Your task to perform on an android device: stop showing notifications on the lock screen Image 0: 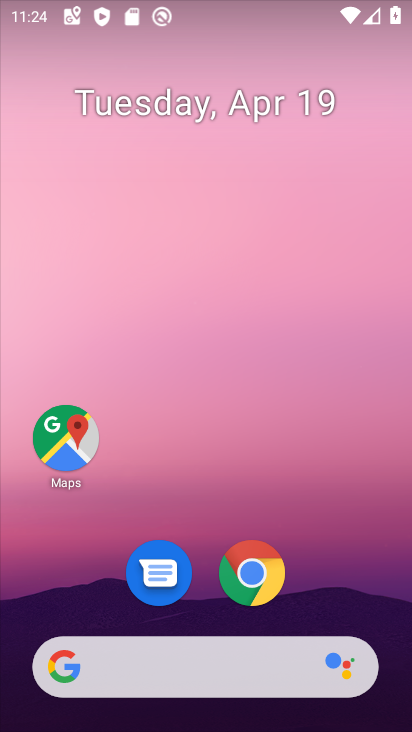
Step 0: drag from (328, 581) to (341, 93)
Your task to perform on an android device: stop showing notifications on the lock screen Image 1: 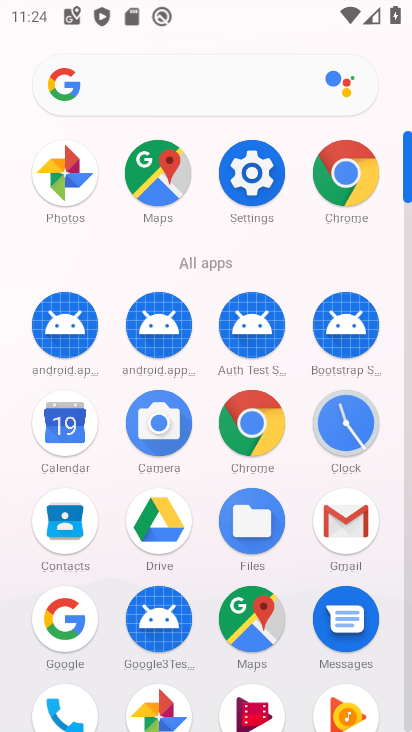
Step 1: click (260, 176)
Your task to perform on an android device: stop showing notifications on the lock screen Image 2: 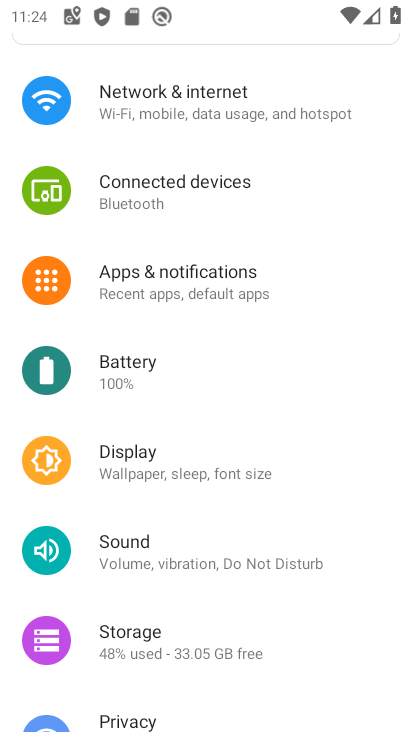
Step 2: click (216, 276)
Your task to perform on an android device: stop showing notifications on the lock screen Image 3: 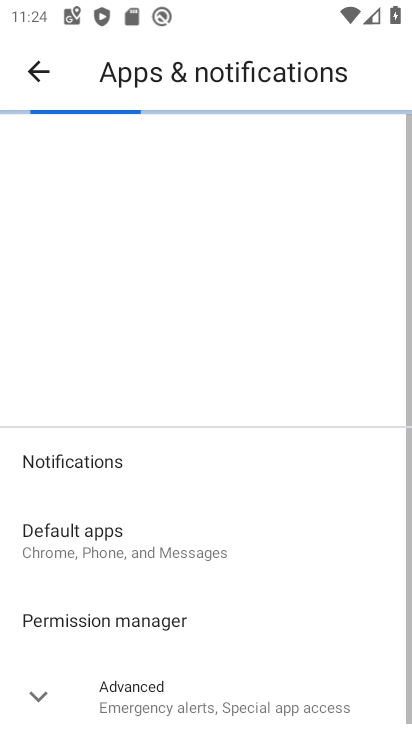
Step 3: click (216, 277)
Your task to perform on an android device: stop showing notifications on the lock screen Image 4: 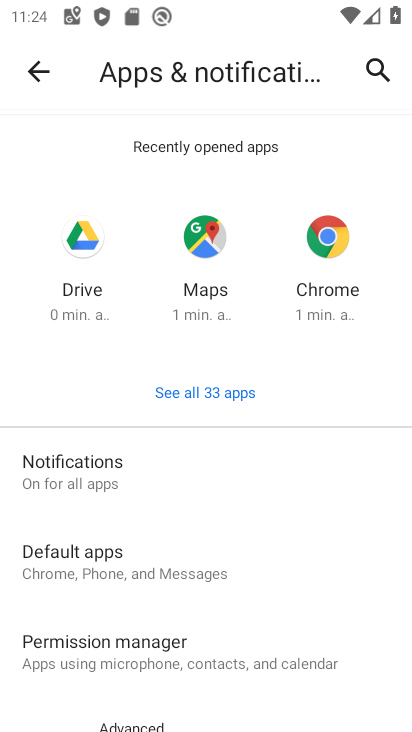
Step 4: click (69, 480)
Your task to perform on an android device: stop showing notifications on the lock screen Image 5: 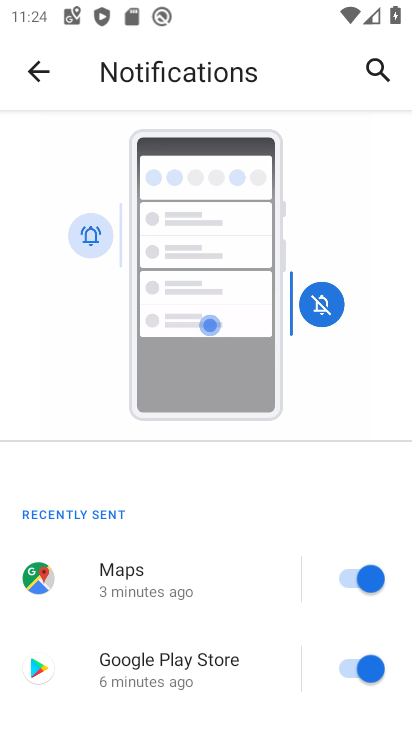
Step 5: drag from (256, 622) to (289, 280)
Your task to perform on an android device: stop showing notifications on the lock screen Image 6: 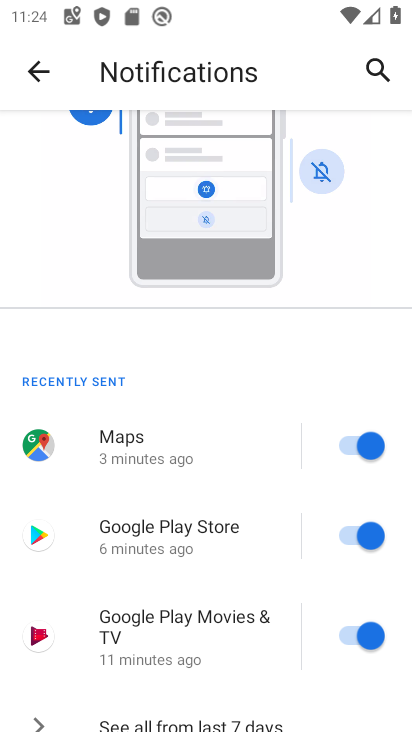
Step 6: drag from (263, 664) to (296, 249)
Your task to perform on an android device: stop showing notifications on the lock screen Image 7: 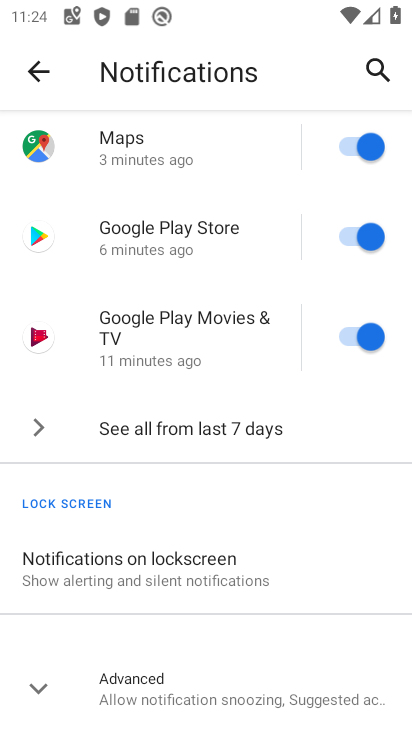
Step 7: click (177, 569)
Your task to perform on an android device: stop showing notifications on the lock screen Image 8: 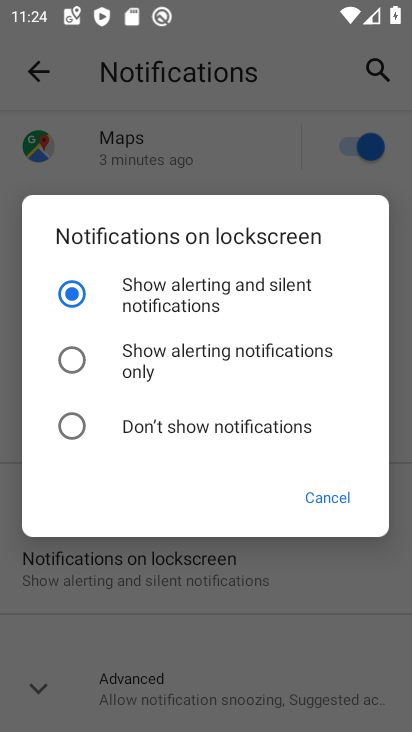
Step 8: click (210, 426)
Your task to perform on an android device: stop showing notifications on the lock screen Image 9: 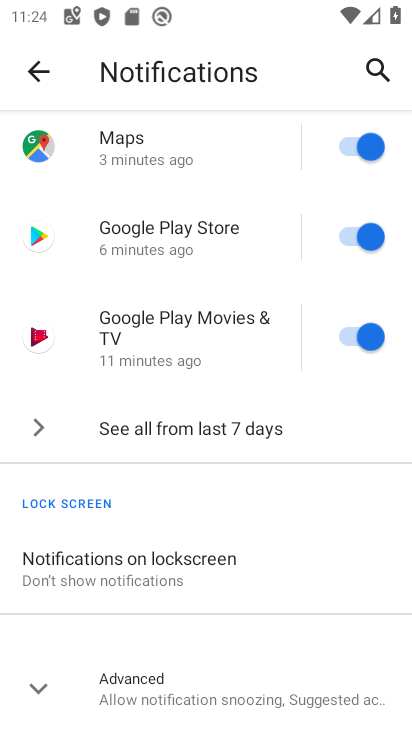
Step 9: task complete